Your task to perform on an android device: turn pop-ups on in chrome Image 0: 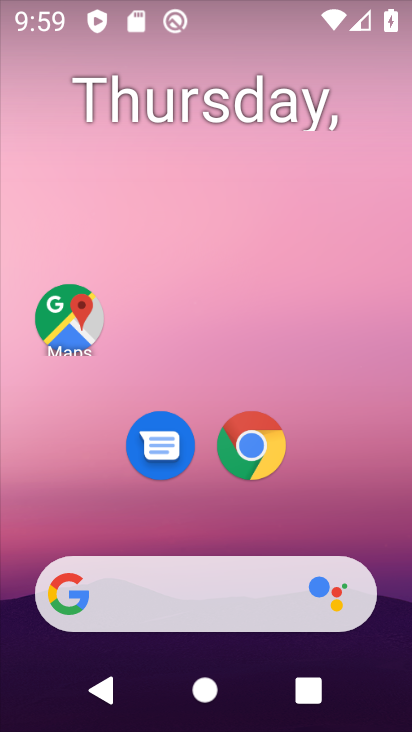
Step 0: click (244, 440)
Your task to perform on an android device: turn pop-ups on in chrome Image 1: 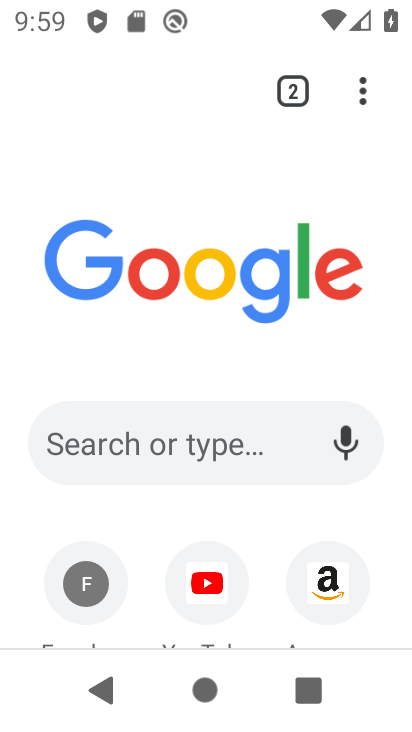
Step 1: click (359, 86)
Your task to perform on an android device: turn pop-ups on in chrome Image 2: 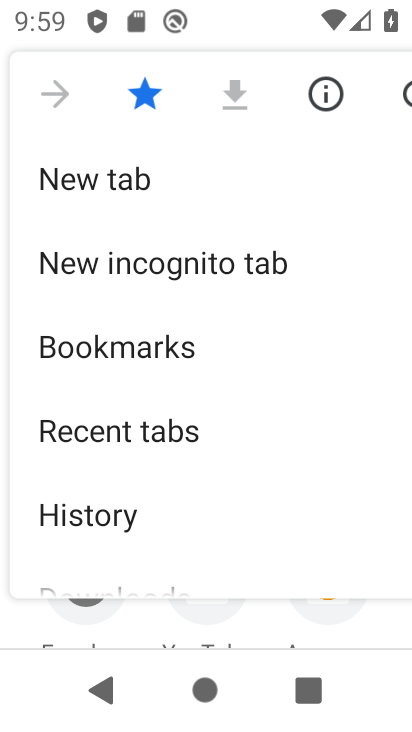
Step 2: drag from (87, 511) to (151, 236)
Your task to perform on an android device: turn pop-ups on in chrome Image 3: 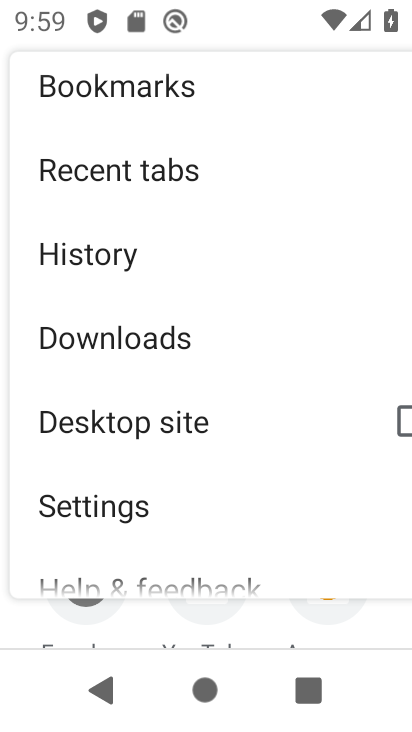
Step 3: click (98, 512)
Your task to perform on an android device: turn pop-ups on in chrome Image 4: 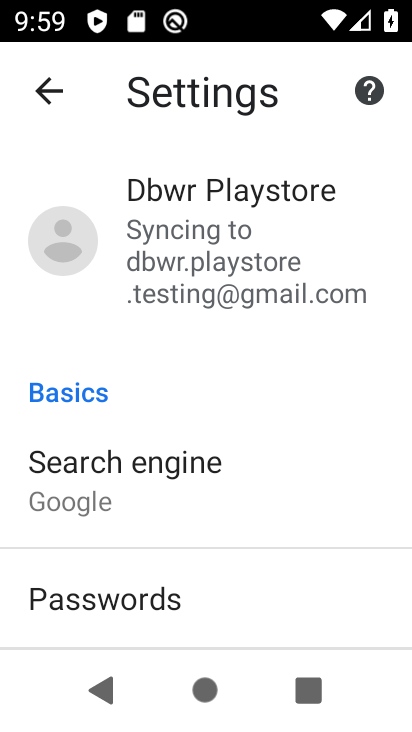
Step 4: drag from (168, 539) to (219, 269)
Your task to perform on an android device: turn pop-ups on in chrome Image 5: 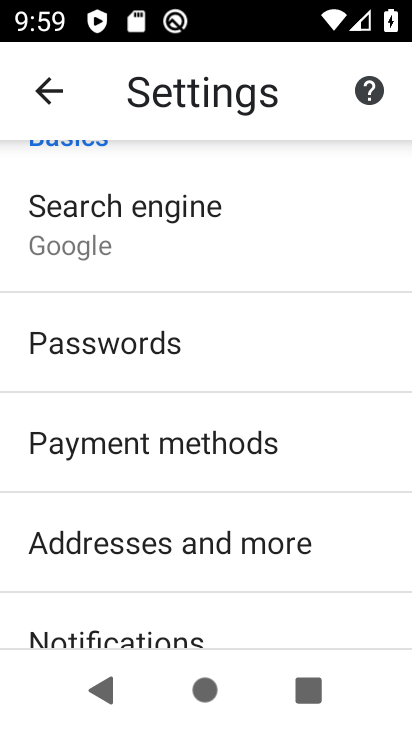
Step 5: drag from (173, 506) to (205, 250)
Your task to perform on an android device: turn pop-ups on in chrome Image 6: 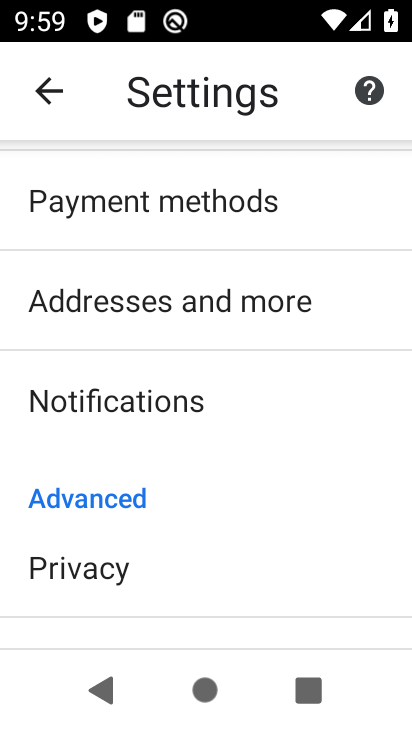
Step 6: drag from (138, 576) to (216, 219)
Your task to perform on an android device: turn pop-ups on in chrome Image 7: 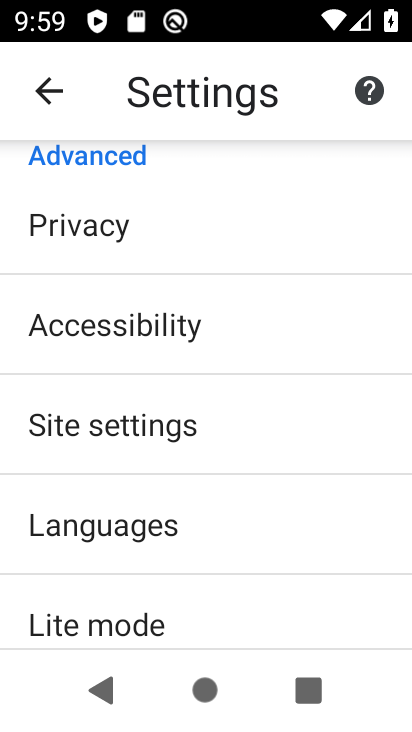
Step 7: click (106, 441)
Your task to perform on an android device: turn pop-ups on in chrome Image 8: 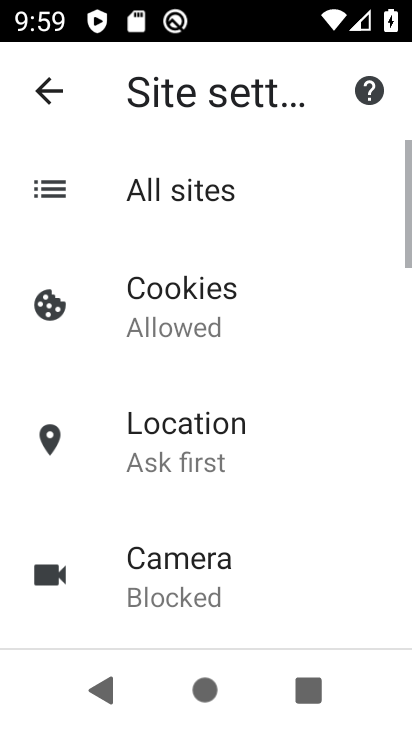
Step 8: drag from (147, 506) to (224, 237)
Your task to perform on an android device: turn pop-ups on in chrome Image 9: 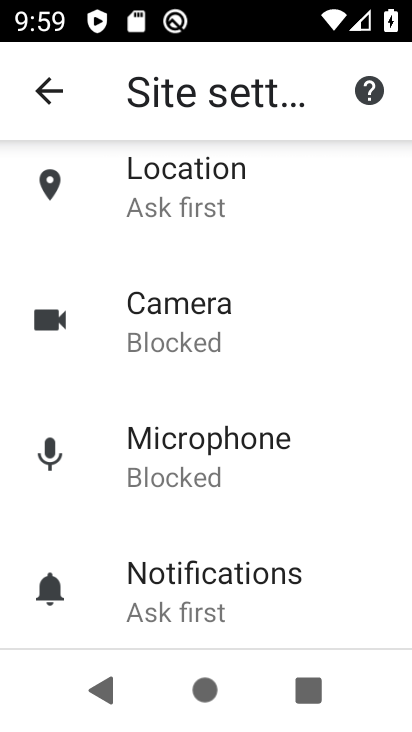
Step 9: drag from (176, 509) to (245, 289)
Your task to perform on an android device: turn pop-ups on in chrome Image 10: 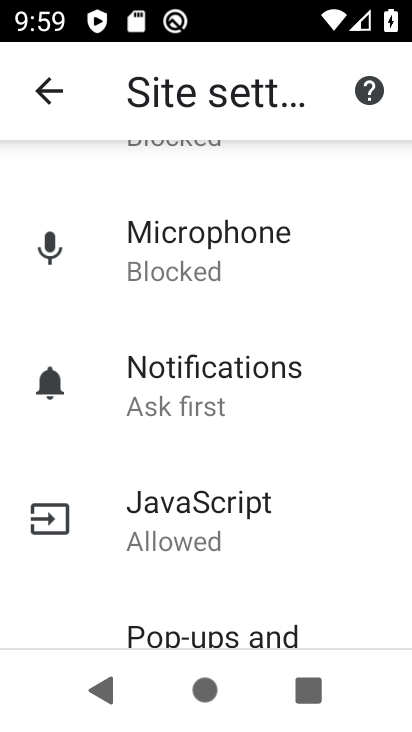
Step 10: drag from (183, 588) to (255, 383)
Your task to perform on an android device: turn pop-ups on in chrome Image 11: 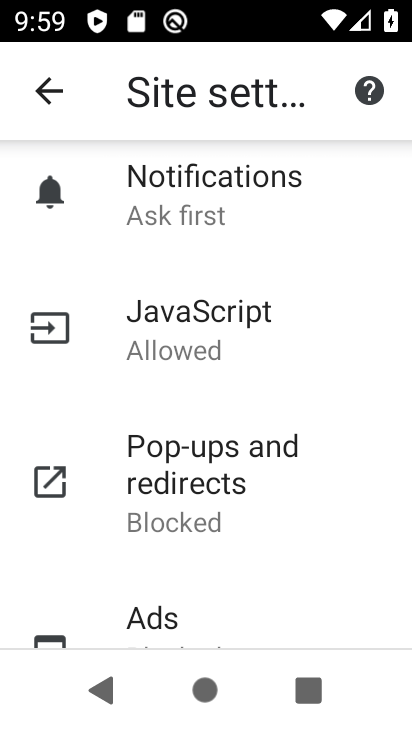
Step 11: click (199, 506)
Your task to perform on an android device: turn pop-ups on in chrome Image 12: 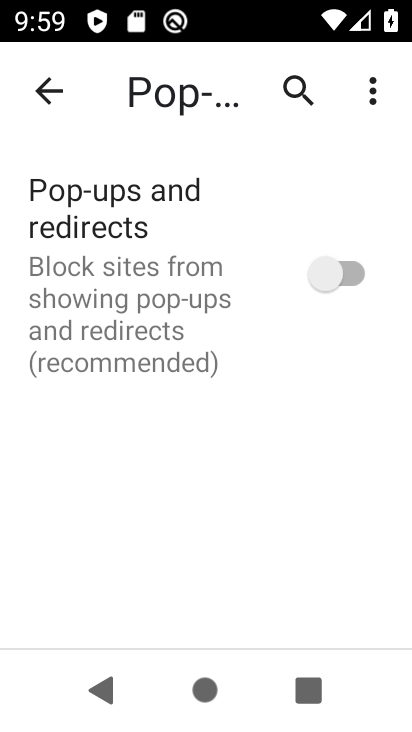
Step 12: click (375, 278)
Your task to perform on an android device: turn pop-ups on in chrome Image 13: 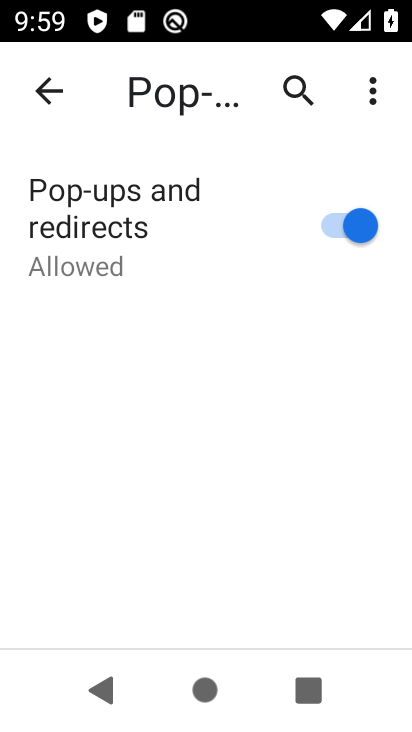
Step 13: task complete